Your task to perform on an android device: open the mobile data screen to see how much data has been used Image 0: 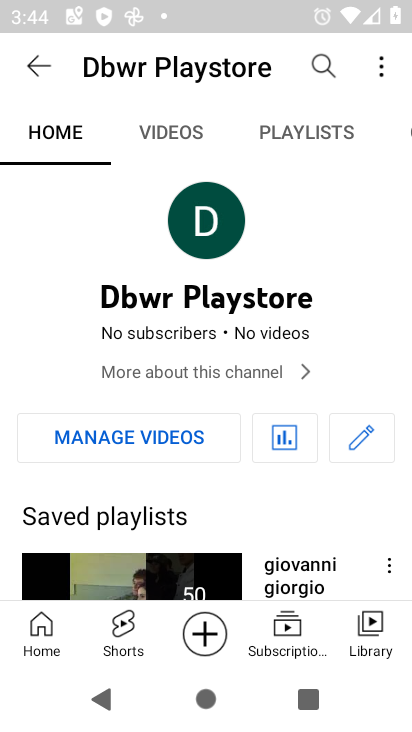
Step 0: press home button
Your task to perform on an android device: open the mobile data screen to see how much data has been used Image 1: 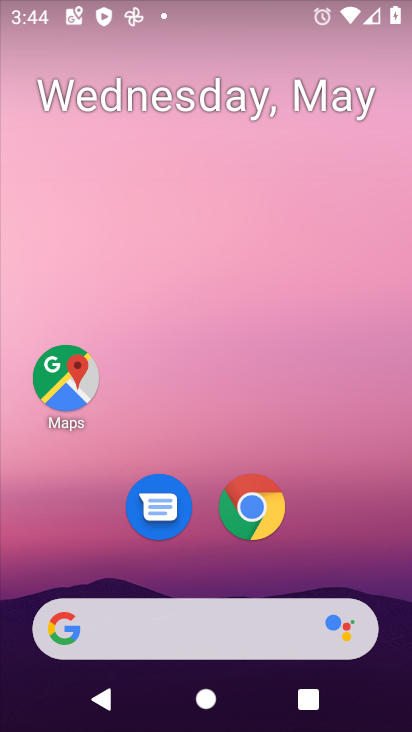
Step 1: click (275, 486)
Your task to perform on an android device: open the mobile data screen to see how much data has been used Image 2: 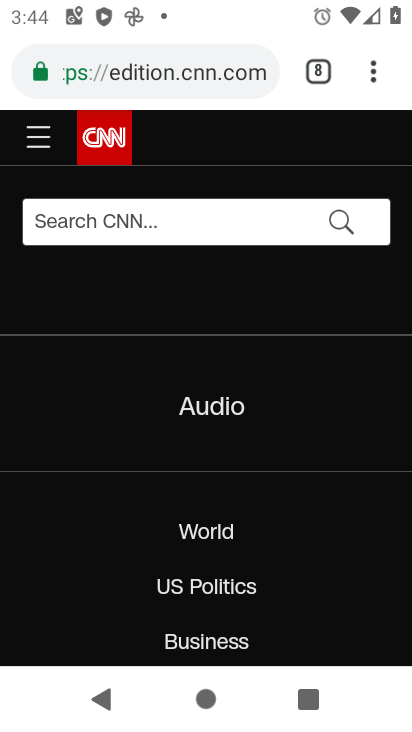
Step 2: press home button
Your task to perform on an android device: open the mobile data screen to see how much data has been used Image 3: 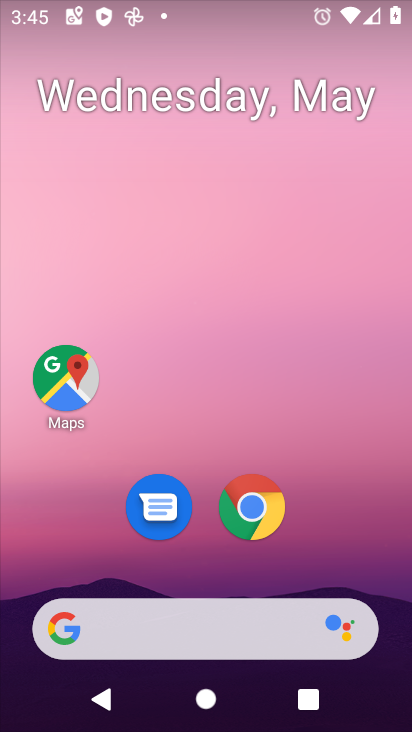
Step 3: drag from (353, 520) to (327, 303)
Your task to perform on an android device: open the mobile data screen to see how much data has been used Image 4: 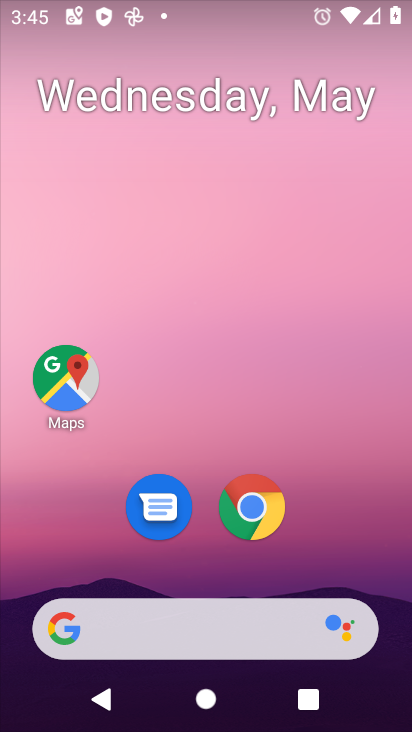
Step 4: drag from (340, 519) to (313, 297)
Your task to perform on an android device: open the mobile data screen to see how much data has been used Image 5: 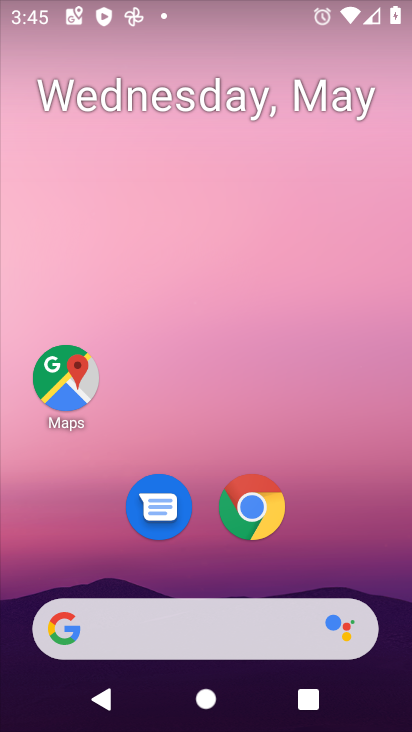
Step 5: drag from (342, 537) to (313, 200)
Your task to perform on an android device: open the mobile data screen to see how much data has been used Image 6: 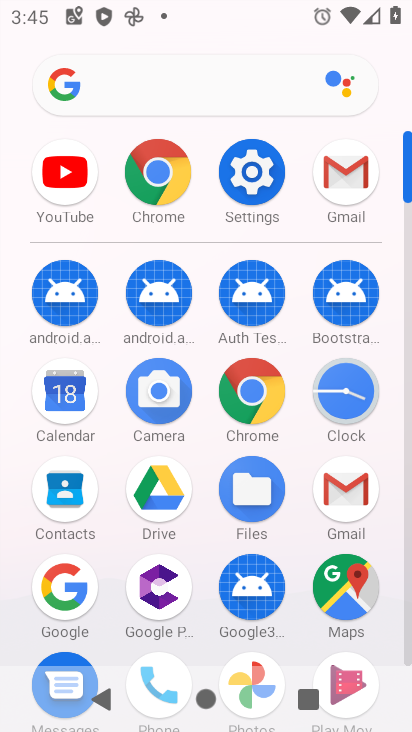
Step 6: click (237, 146)
Your task to perform on an android device: open the mobile data screen to see how much data has been used Image 7: 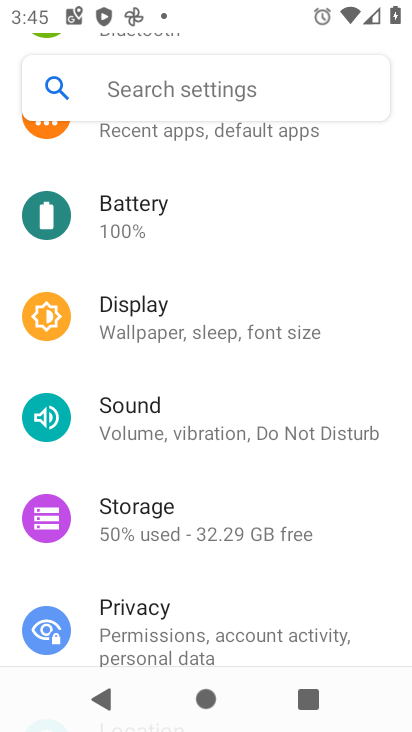
Step 7: drag from (202, 219) to (240, 546)
Your task to perform on an android device: open the mobile data screen to see how much data has been used Image 8: 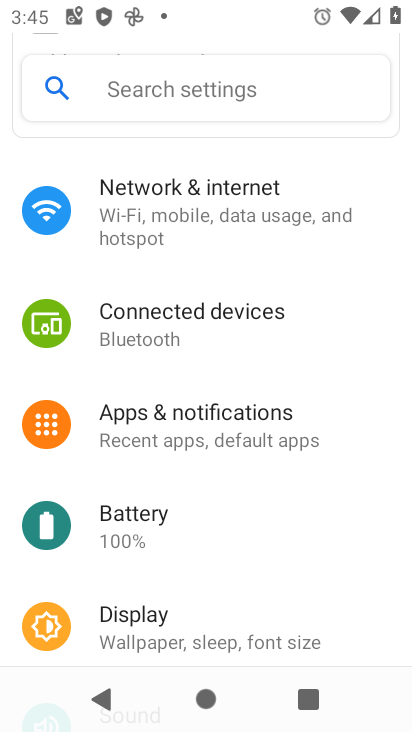
Step 8: click (249, 211)
Your task to perform on an android device: open the mobile data screen to see how much data has been used Image 9: 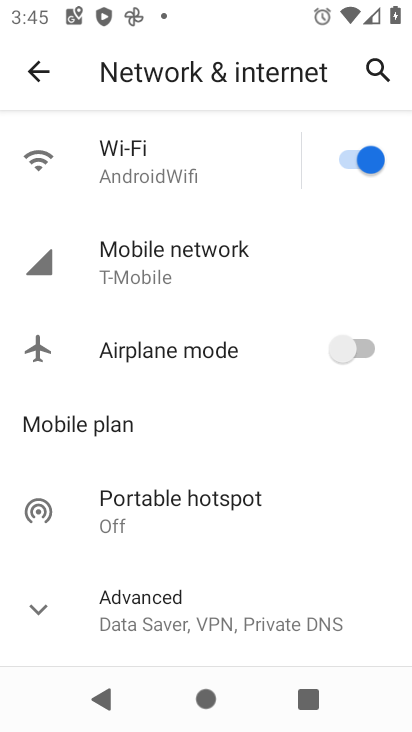
Step 9: click (171, 297)
Your task to perform on an android device: open the mobile data screen to see how much data has been used Image 10: 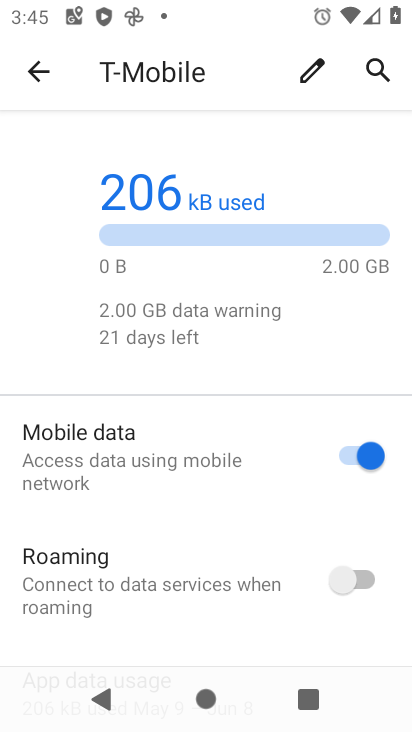
Step 10: task complete